Your task to perform on an android device: Search for pizza restaurants on Maps Image 0: 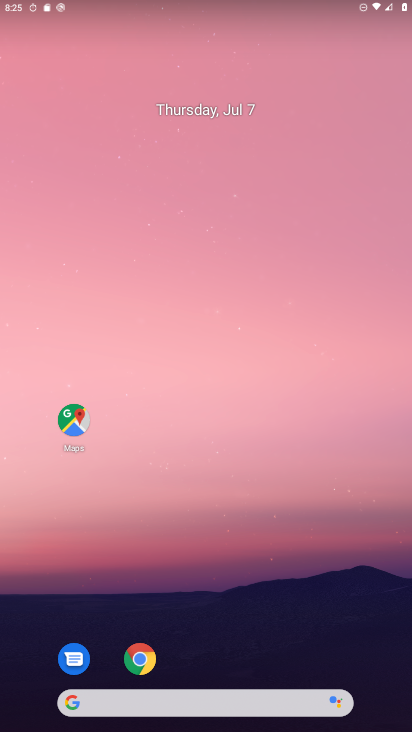
Step 0: drag from (359, 665) to (257, 68)
Your task to perform on an android device: Search for pizza restaurants on Maps Image 1: 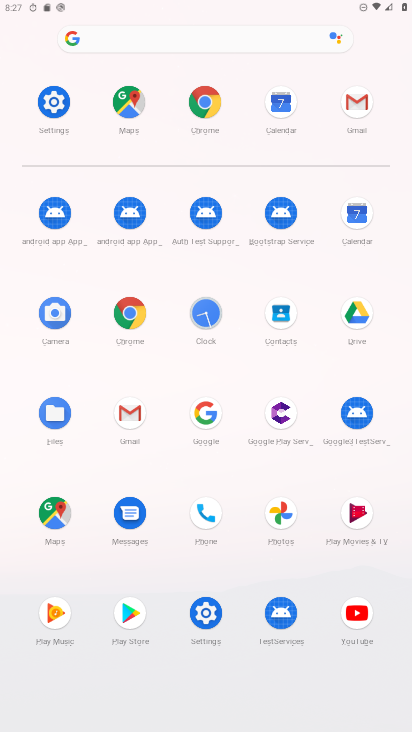
Step 1: click (59, 523)
Your task to perform on an android device: Search for pizza restaurants on Maps Image 2: 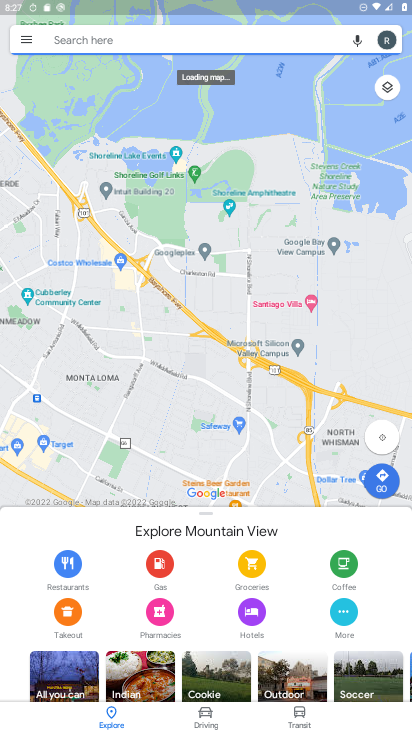
Step 2: click (203, 35)
Your task to perform on an android device: Search for pizza restaurants on Maps Image 3: 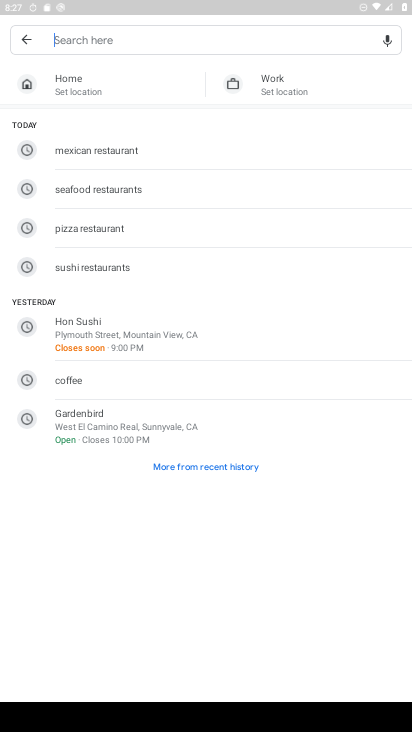
Step 3: click (106, 233)
Your task to perform on an android device: Search for pizza restaurants on Maps Image 4: 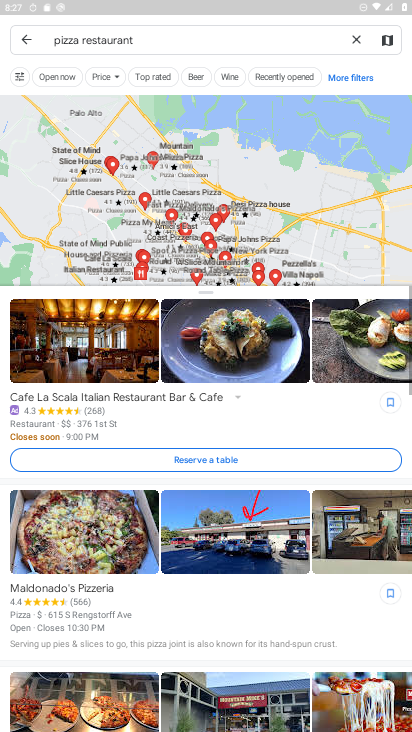
Step 4: task complete